Your task to perform on an android device: Open Yahoo.com Image 0: 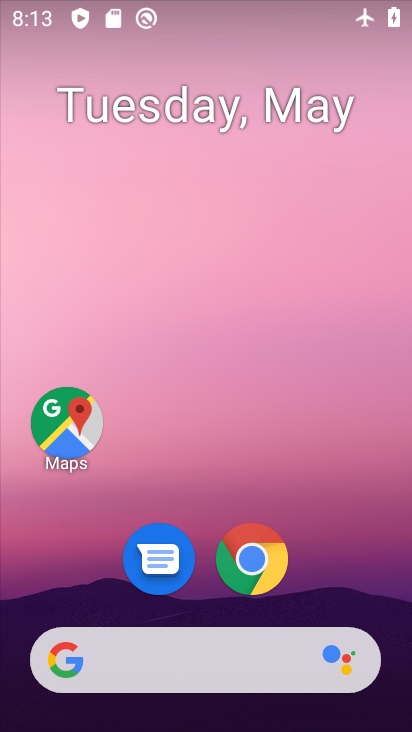
Step 0: click (271, 562)
Your task to perform on an android device: Open Yahoo.com Image 1: 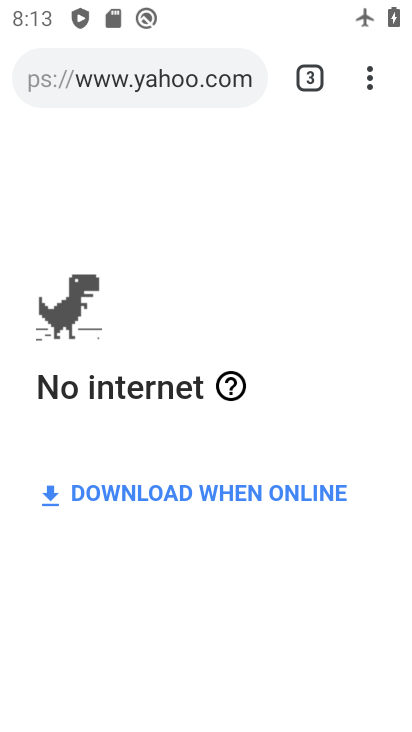
Step 1: task complete